Your task to perform on an android device: Check the news Image 0: 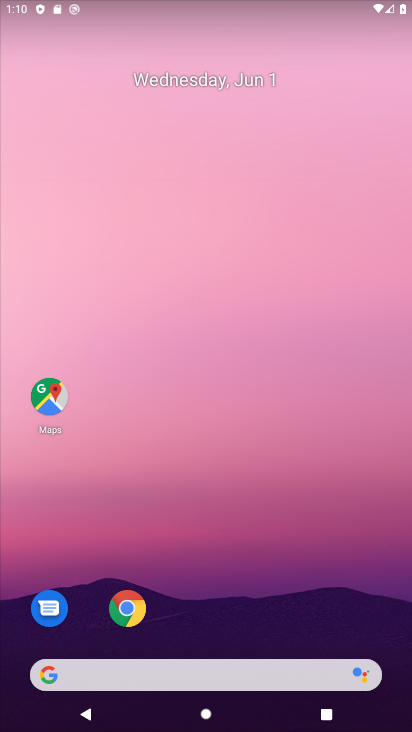
Step 0: drag from (233, 585) to (185, 126)
Your task to perform on an android device: Check the news Image 1: 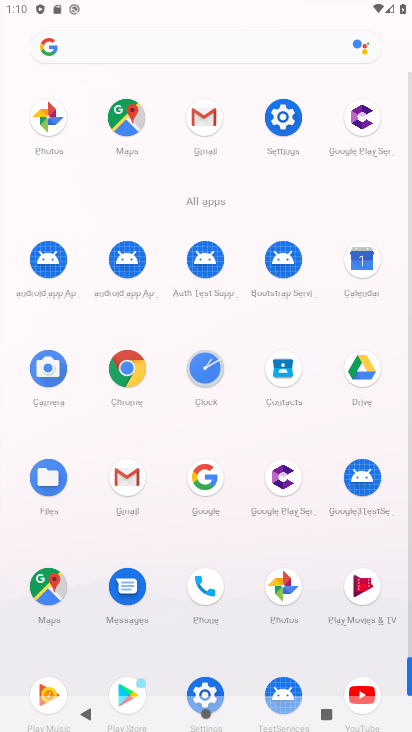
Step 1: click (209, 485)
Your task to perform on an android device: Check the news Image 2: 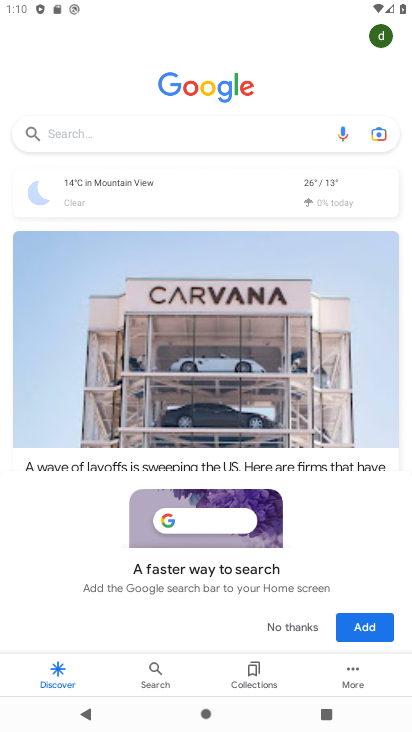
Step 2: click (151, 129)
Your task to perform on an android device: Check the news Image 3: 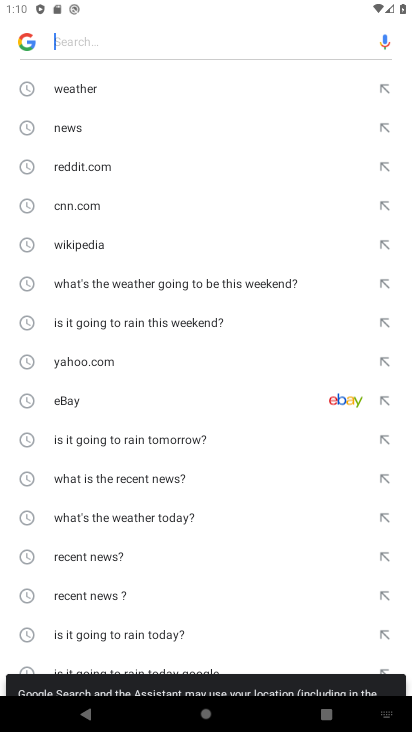
Step 3: click (90, 131)
Your task to perform on an android device: Check the news Image 4: 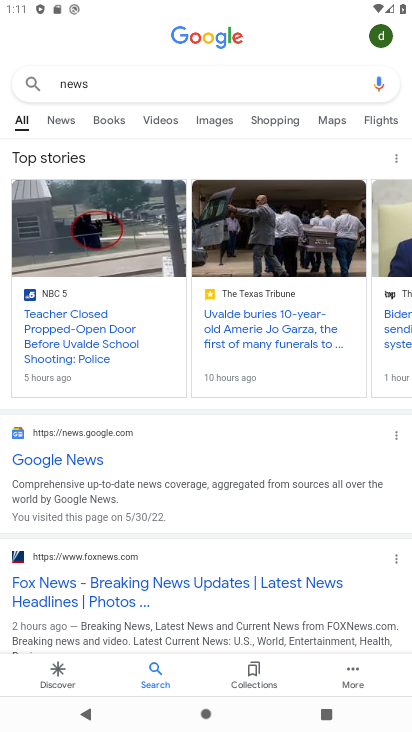
Step 4: task complete